Your task to perform on an android device: Go to internet settings Image 0: 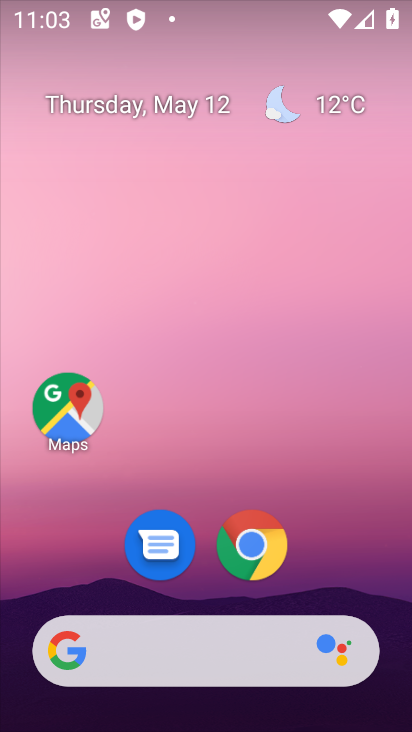
Step 0: drag from (204, 594) to (186, 155)
Your task to perform on an android device: Go to internet settings Image 1: 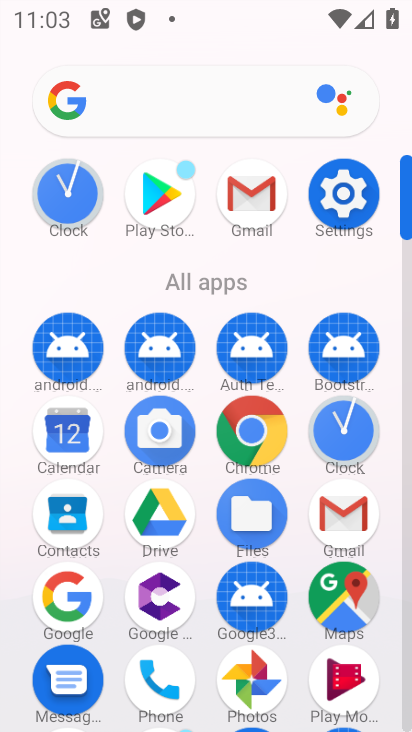
Step 1: click (339, 186)
Your task to perform on an android device: Go to internet settings Image 2: 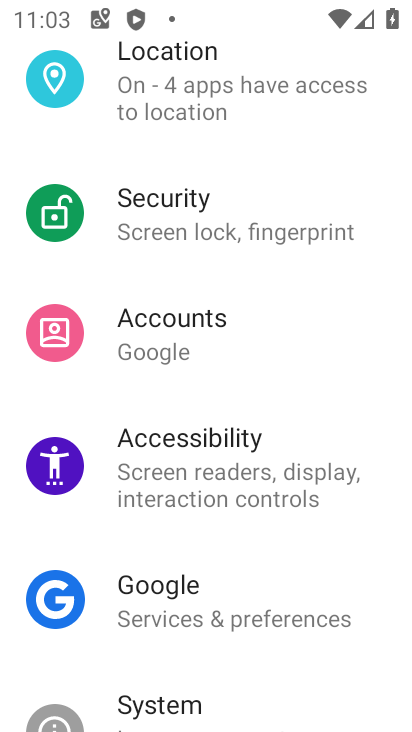
Step 2: drag from (214, 146) to (242, 716)
Your task to perform on an android device: Go to internet settings Image 3: 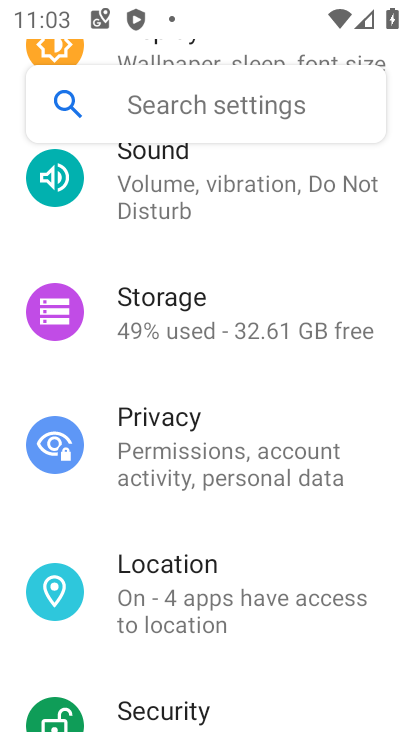
Step 3: drag from (209, 211) to (227, 731)
Your task to perform on an android device: Go to internet settings Image 4: 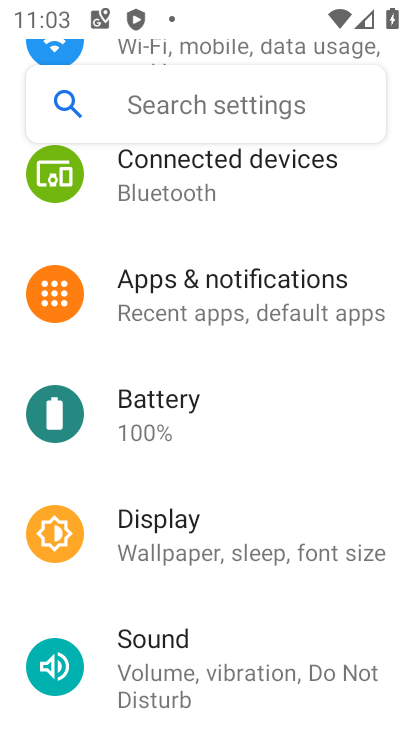
Step 4: drag from (199, 222) to (220, 714)
Your task to perform on an android device: Go to internet settings Image 5: 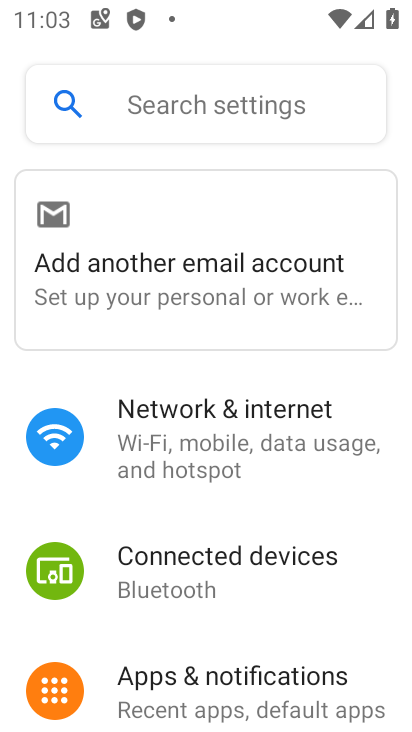
Step 5: click (266, 463)
Your task to perform on an android device: Go to internet settings Image 6: 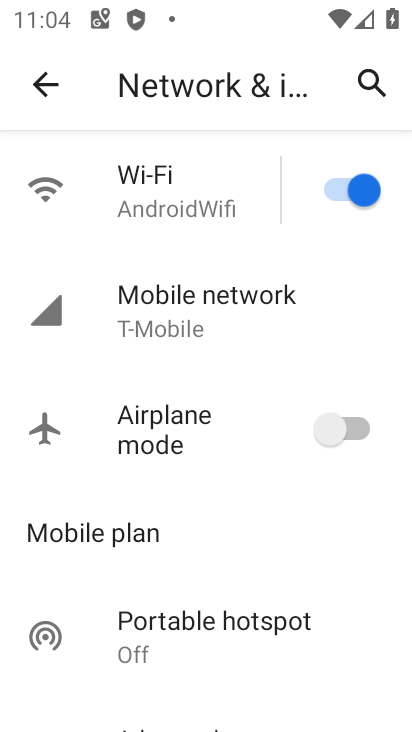
Step 6: drag from (168, 616) to (194, 182)
Your task to perform on an android device: Go to internet settings Image 7: 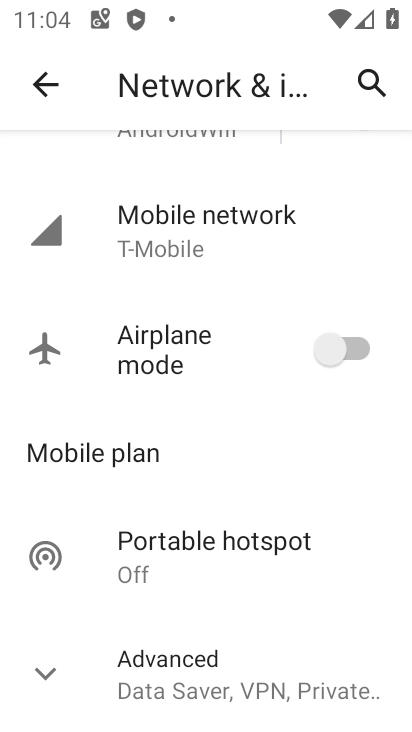
Step 7: click (42, 664)
Your task to perform on an android device: Go to internet settings Image 8: 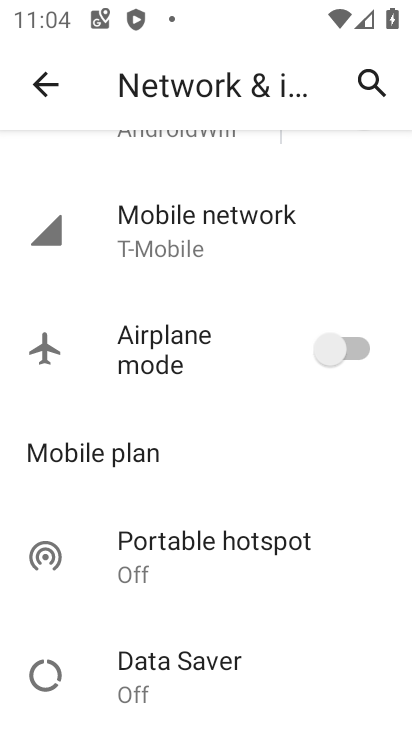
Step 8: task complete